Your task to perform on an android device: Go to settings Image 0: 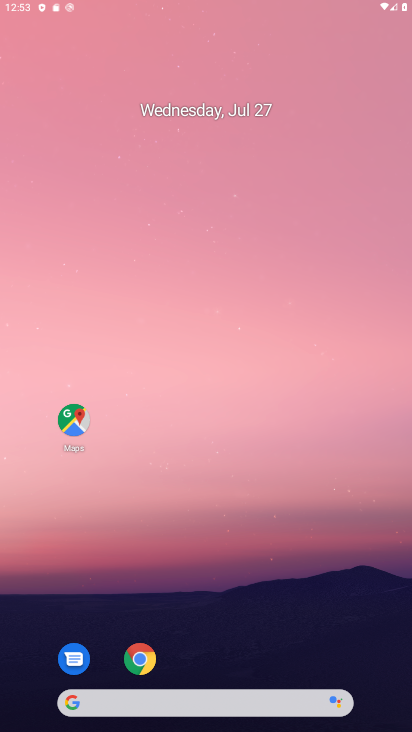
Step 0: press home button
Your task to perform on an android device: Go to settings Image 1: 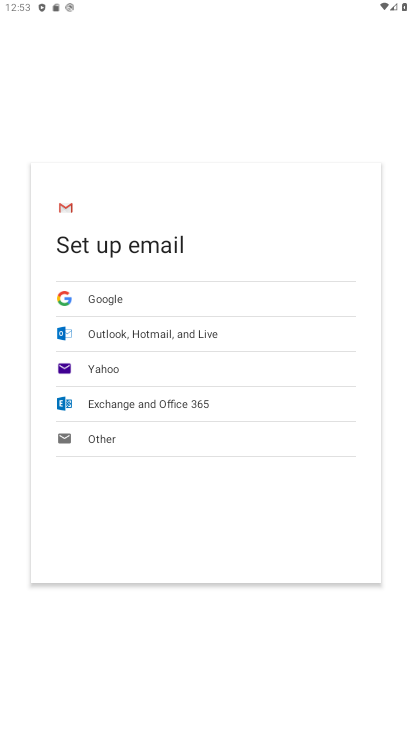
Step 1: drag from (352, 587) to (379, 145)
Your task to perform on an android device: Go to settings Image 2: 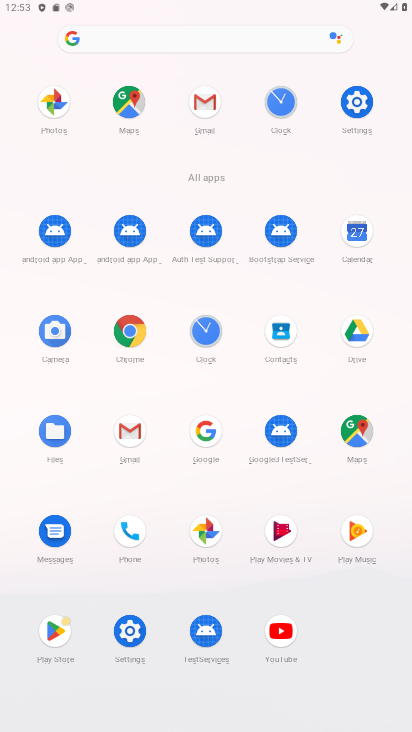
Step 2: click (116, 620)
Your task to perform on an android device: Go to settings Image 3: 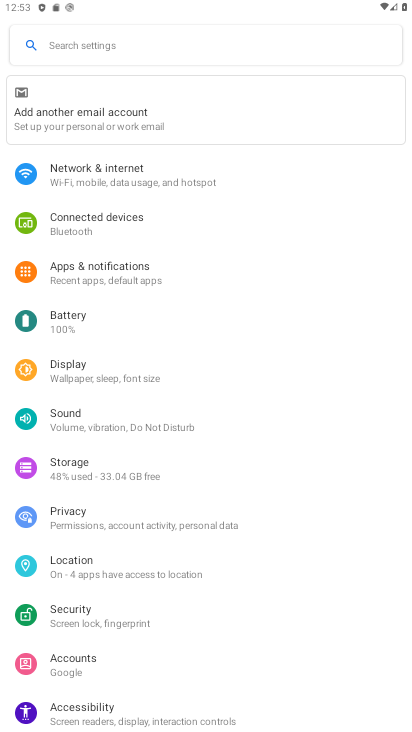
Step 3: task complete